Your task to perform on an android device: turn on airplane mode Image 0: 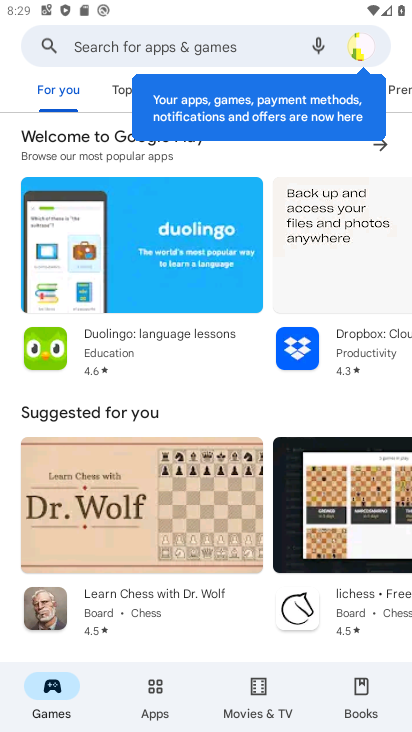
Step 0: press home button
Your task to perform on an android device: turn on airplane mode Image 1: 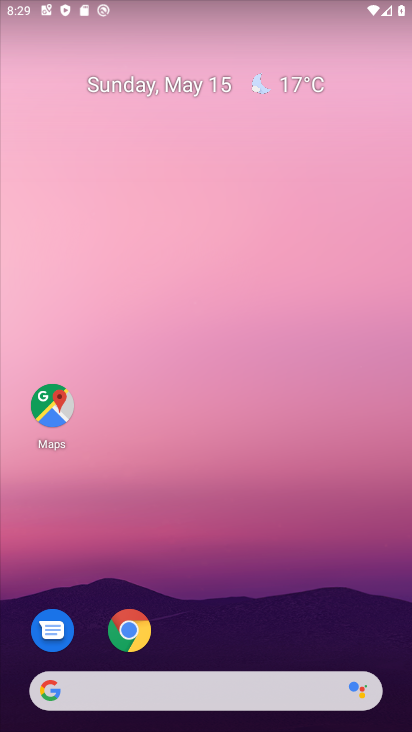
Step 1: drag from (367, 533) to (267, 70)
Your task to perform on an android device: turn on airplane mode Image 2: 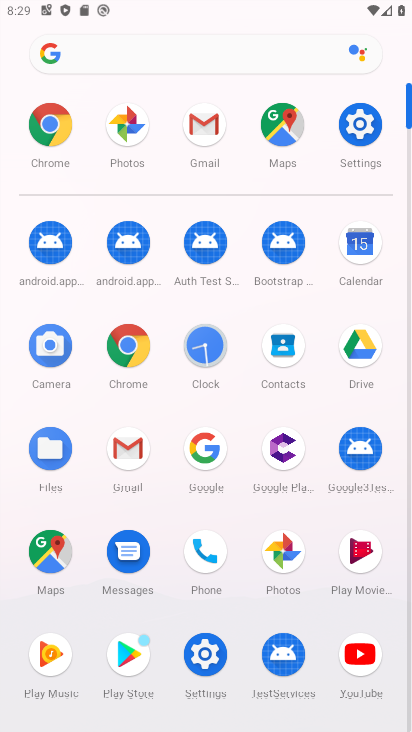
Step 2: click (346, 117)
Your task to perform on an android device: turn on airplane mode Image 3: 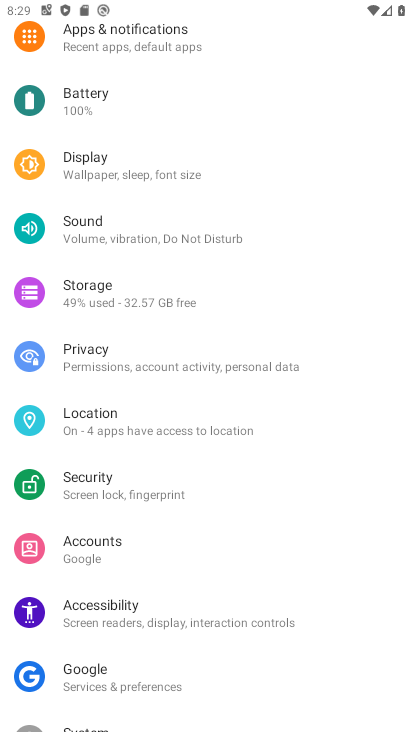
Step 3: drag from (181, 167) to (196, 546)
Your task to perform on an android device: turn on airplane mode Image 4: 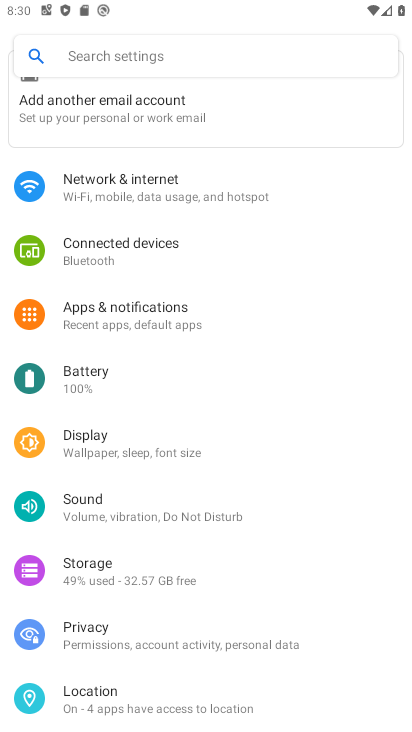
Step 4: drag from (79, 185) to (176, 527)
Your task to perform on an android device: turn on airplane mode Image 5: 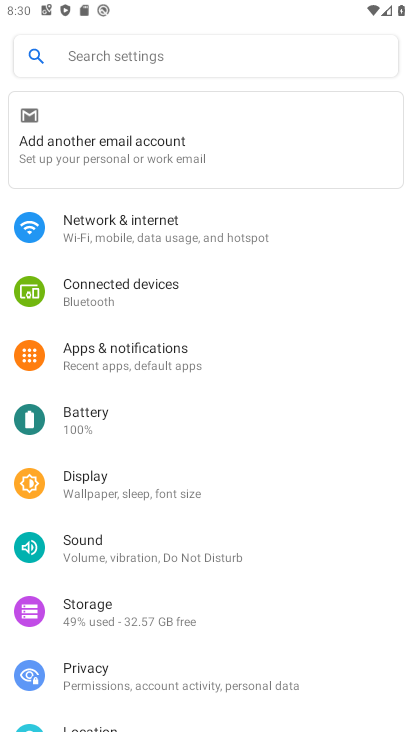
Step 5: click (113, 223)
Your task to perform on an android device: turn on airplane mode Image 6: 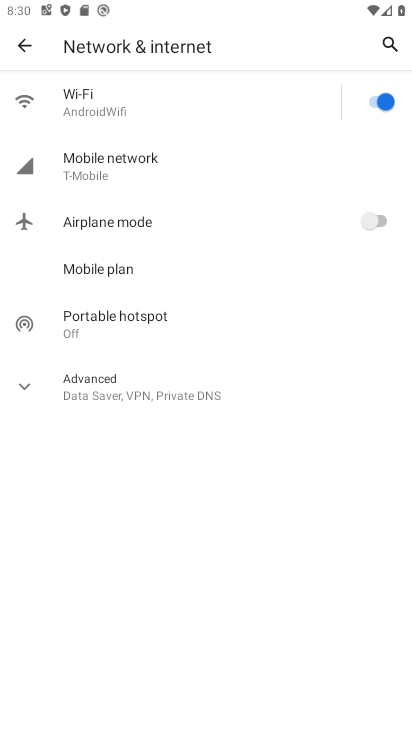
Step 6: click (365, 222)
Your task to perform on an android device: turn on airplane mode Image 7: 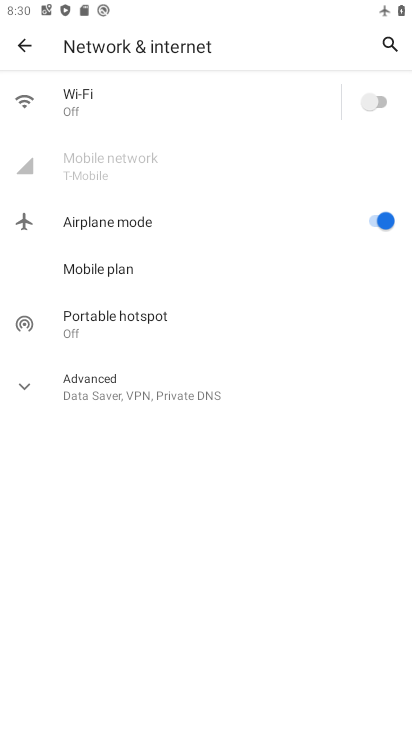
Step 7: task complete